Your task to perform on an android device: What time is it in Sydney? Image 0: 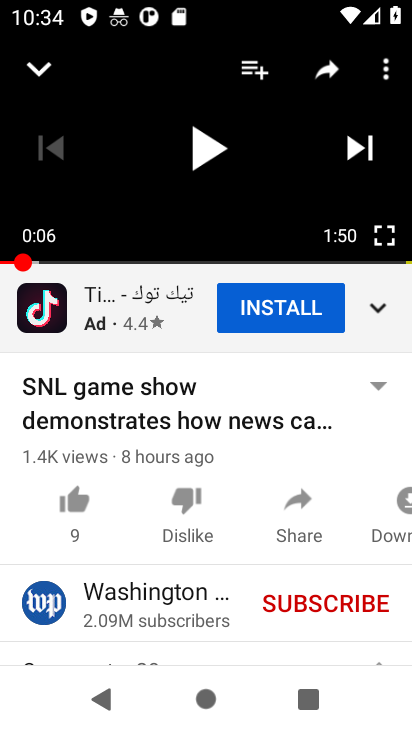
Step 0: press home button
Your task to perform on an android device: What time is it in Sydney? Image 1: 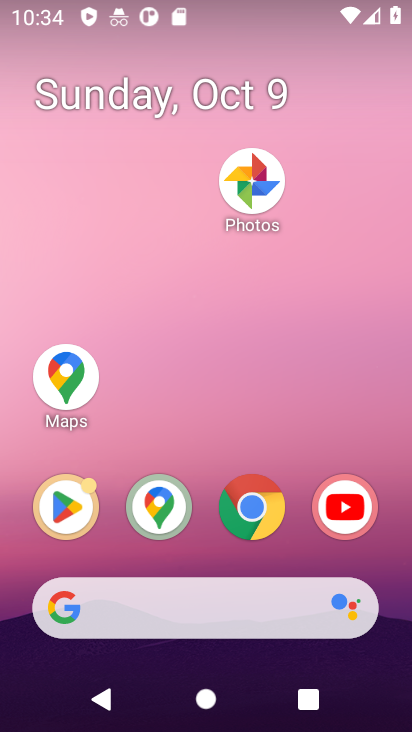
Step 1: drag from (219, 553) to (239, 5)
Your task to perform on an android device: What time is it in Sydney? Image 2: 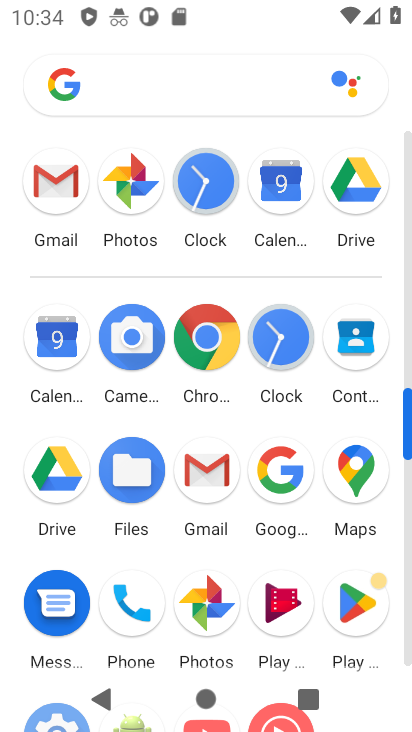
Step 2: click (210, 341)
Your task to perform on an android device: What time is it in Sydney? Image 3: 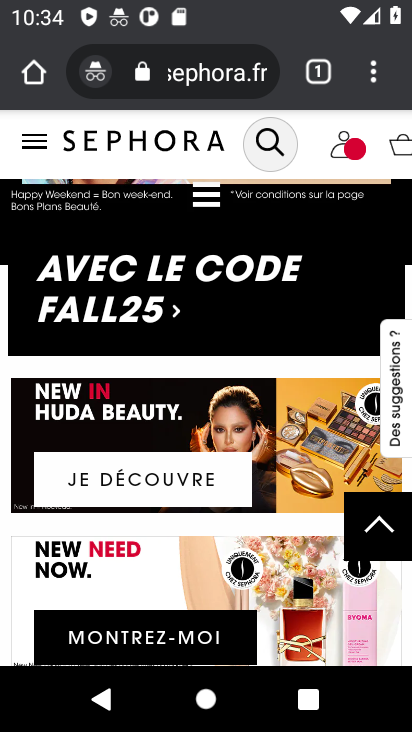
Step 3: click (200, 69)
Your task to perform on an android device: What time is it in Sydney? Image 4: 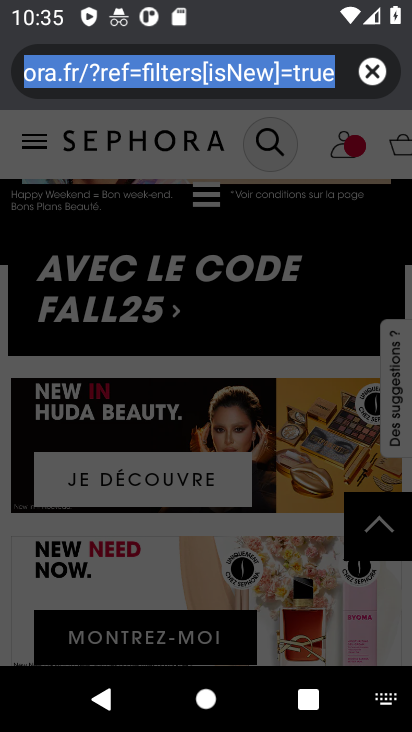
Step 4: type "What time is it in Sydney?"
Your task to perform on an android device: What time is it in Sydney? Image 5: 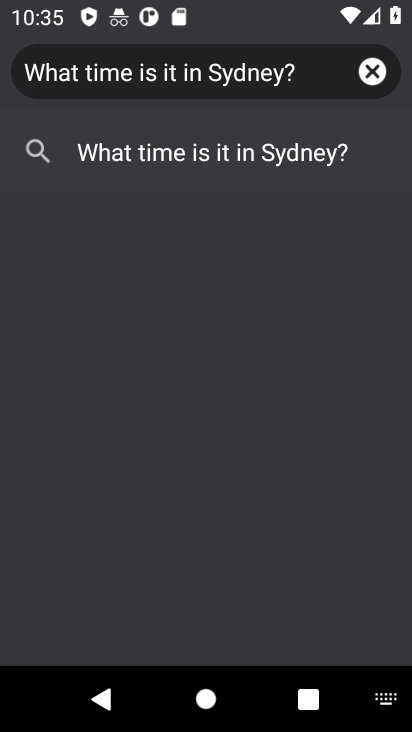
Step 5: press enter
Your task to perform on an android device: What time is it in Sydney? Image 6: 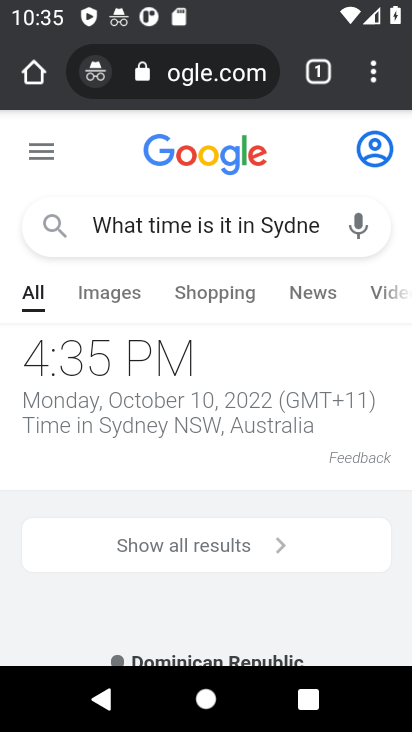
Step 6: task complete